Your task to perform on an android device: Open notification settings Image 0: 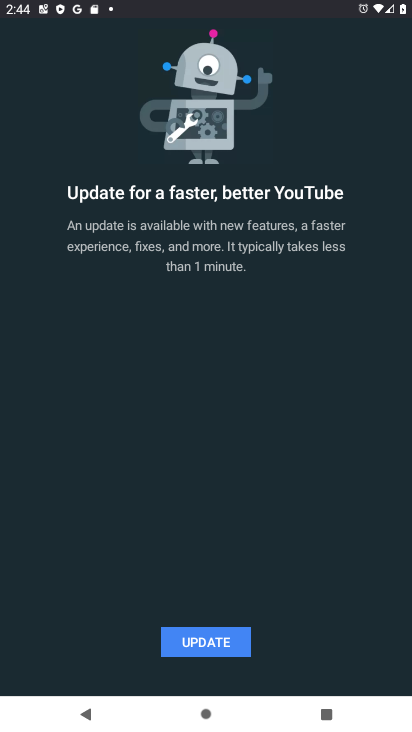
Step 0: press home button
Your task to perform on an android device: Open notification settings Image 1: 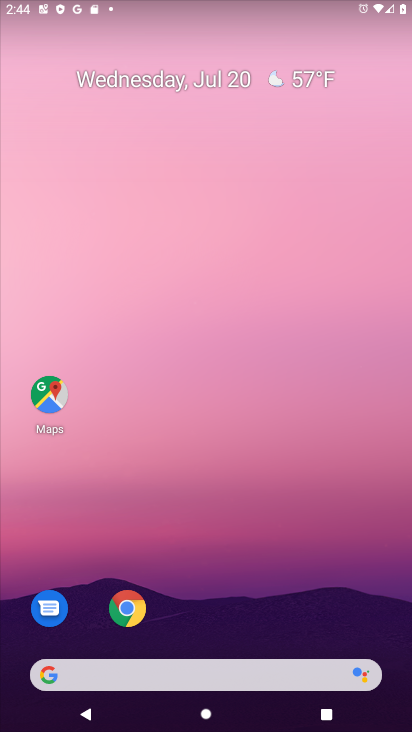
Step 1: drag from (181, 575) to (162, 92)
Your task to perform on an android device: Open notification settings Image 2: 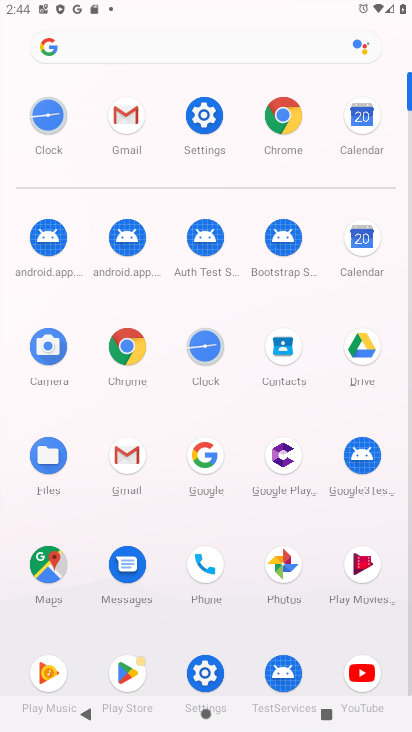
Step 2: click (204, 128)
Your task to perform on an android device: Open notification settings Image 3: 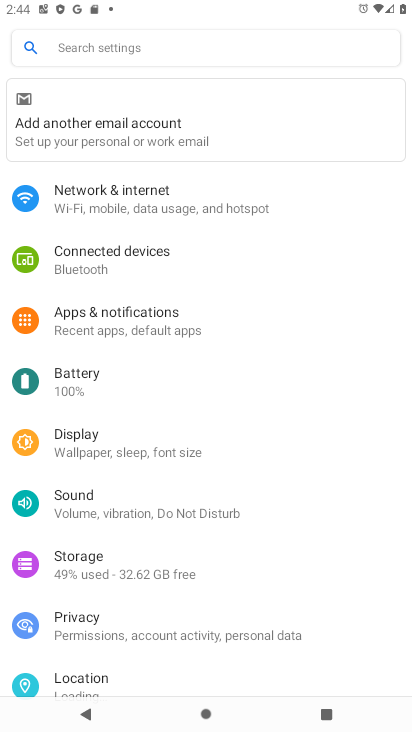
Step 3: click (88, 324)
Your task to perform on an android device: Open notification settings Image 4: 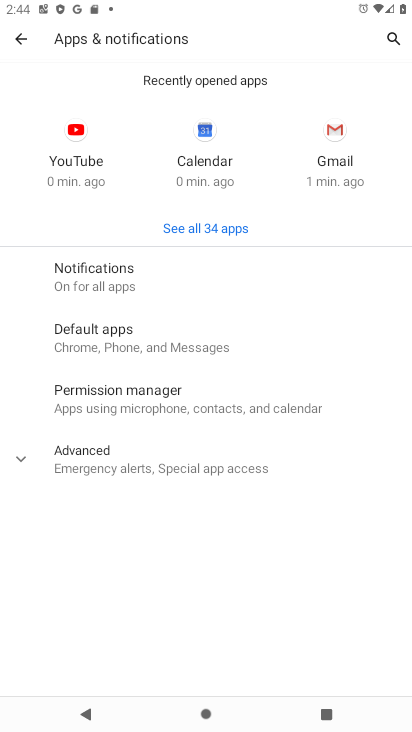
Step 4: click (81, 267)
Your task to perform on an android device: Open notification settings Image 5: 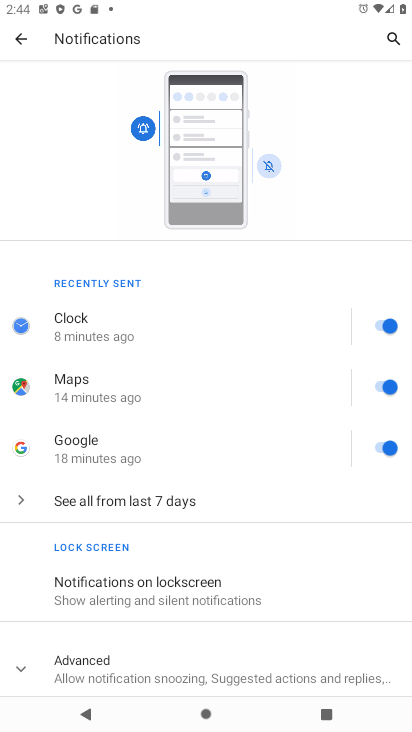
Step 5: task complete